Your task to perform on an android device: turn notification dots on Image 0: 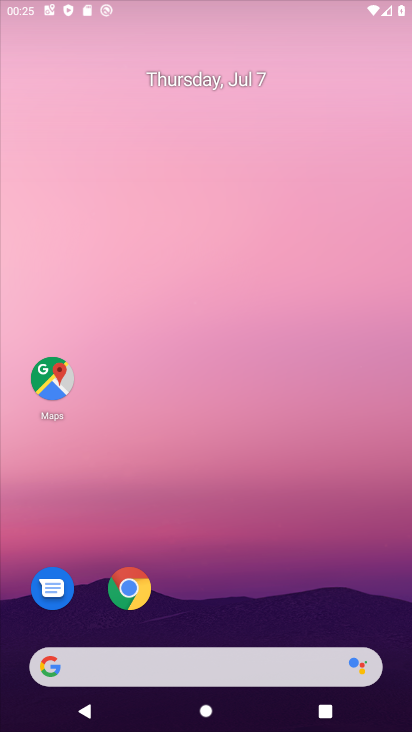
Step 0: drag from (229, 725) to (230, 535)
Your task to perform on an android device: turn notification dots on Image 1: 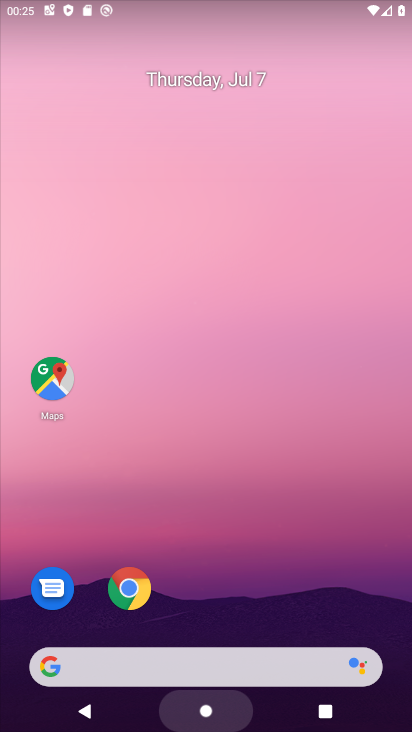
Step 1: drag from (221, 180) to (224, 140)
Your task to perform on an android device: turn notification dots on Image 2: 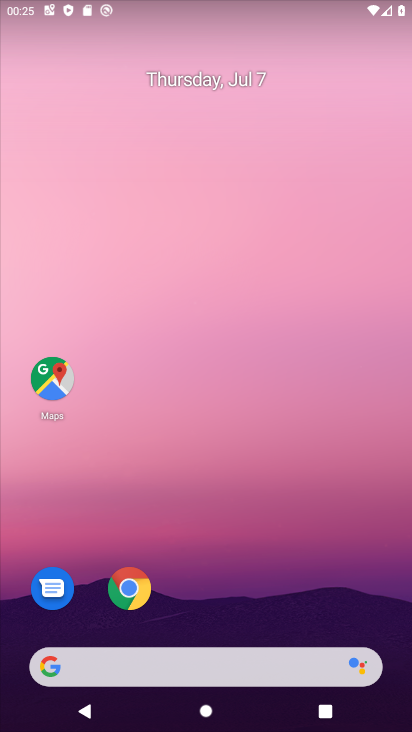
Step 2: drag from (238, 700) to (233, 109)
Your task to perform on an android device: turn notification dots on Image 3: 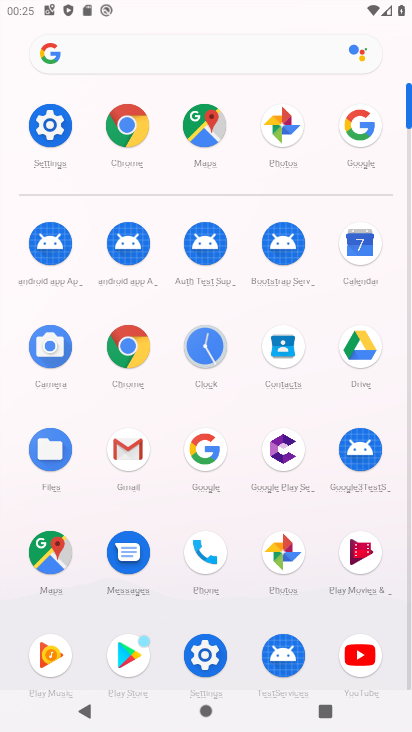
Step 3: click (47, 130)
Your task to perform on an android device: turn notification dots on Image 4: 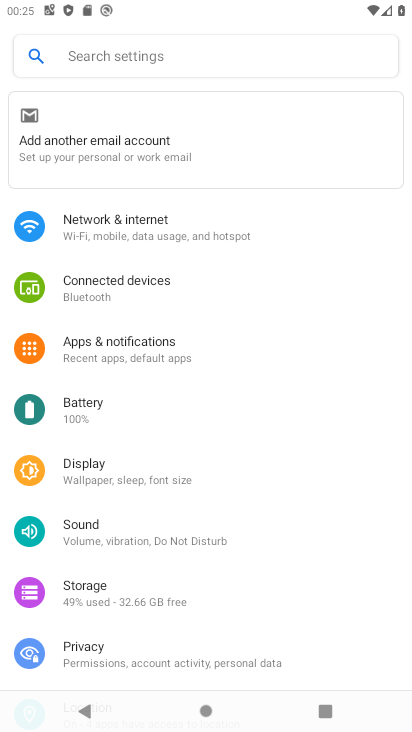
Step 4: click (131, 348)
Your task to perform on an android device: turn notification dots on Image 5: 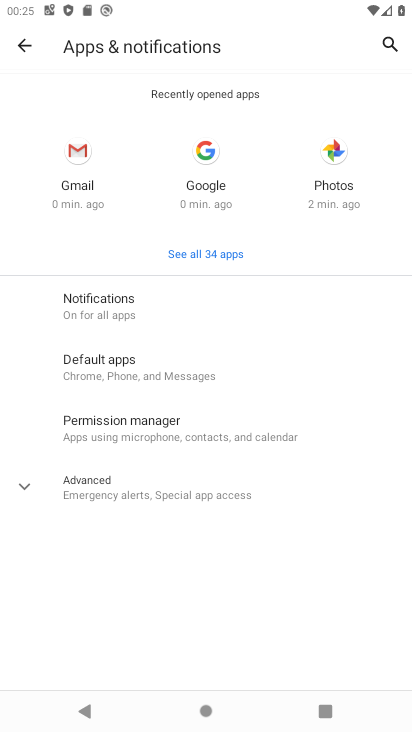
Step 5: click (103, 310)
Your task to perform on an android device: turn notification dots on Image 6: 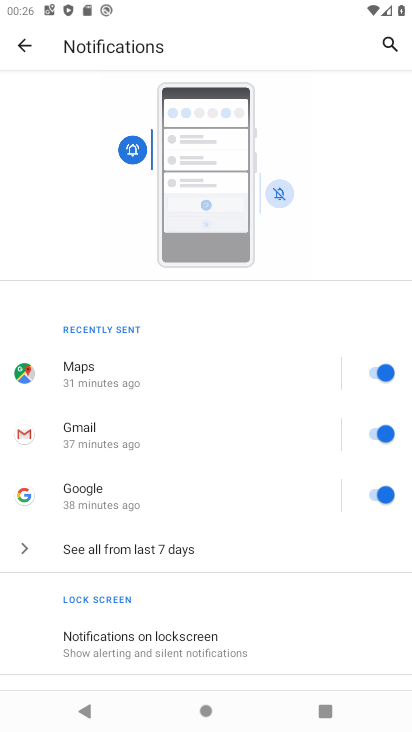
Step 6: drag from (256, 657) to (256, 562)
Your task to perform on an android device: turn notification dots on Image 7: 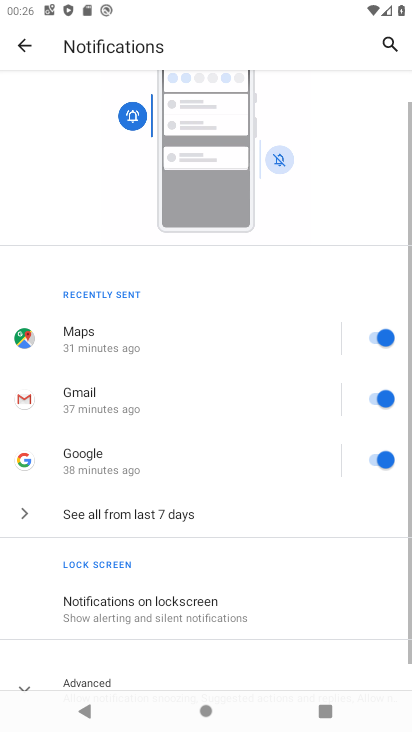
Step 7: click (219, 299)
Your task to perform on an android device: turn notification dots on Image 8: 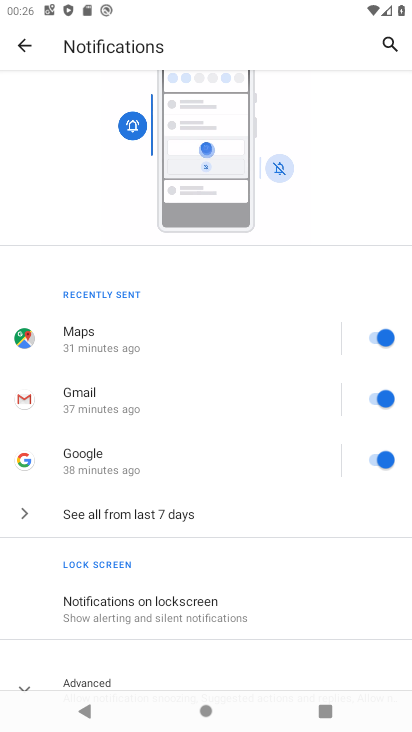
Step 8: drag from (266, 675) to (255, 602)
Your task to perform on an android device: turn notification dots on Image 9: 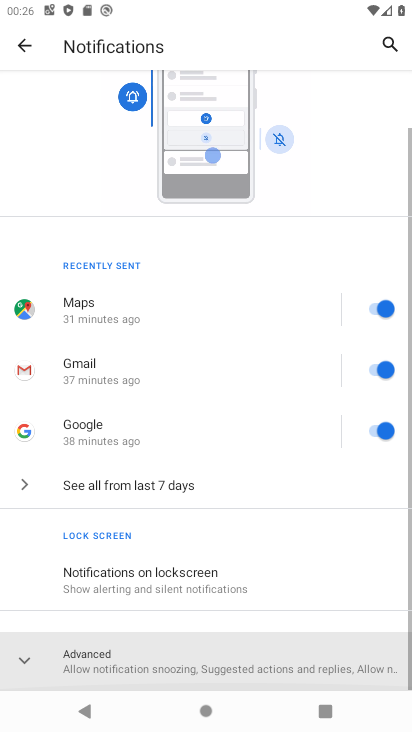
Step 9: drag from (252, 426) to (252, 339)
Your task to perform on an android device: turn notification dots on Image 10: 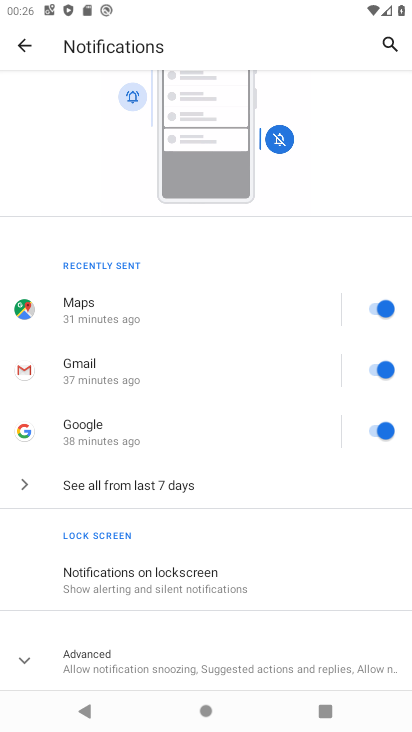
Step 10: click (243, 668)
Your task to perform on an android device: turn notification dots on Image 11: 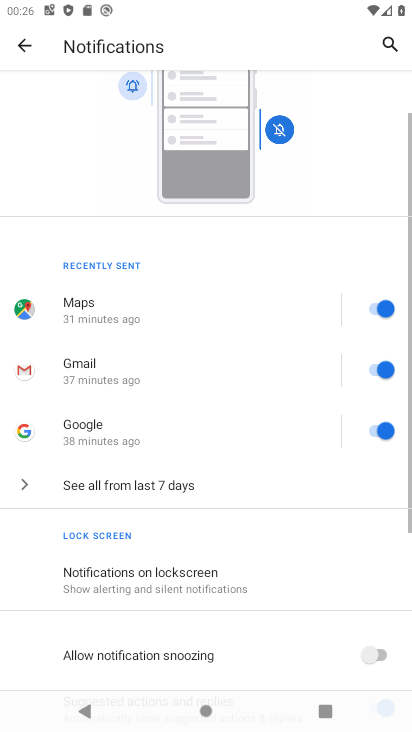
Step 11: task complete